Your task to perform on an android device: Open Google Image 0: 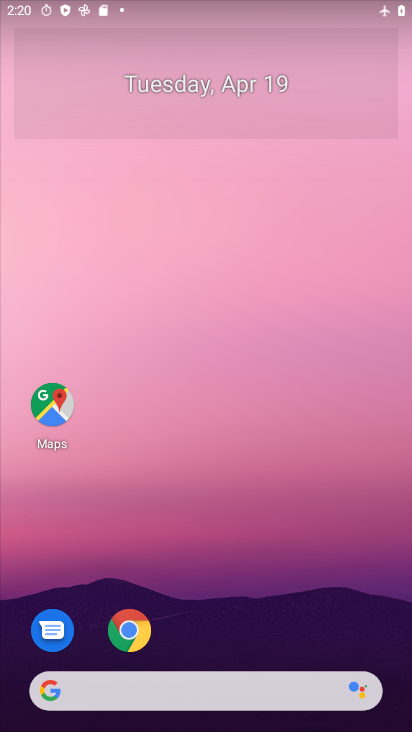
Step 0: click (199, 683)
Your task to perform on an android device: Open Google Image 1: 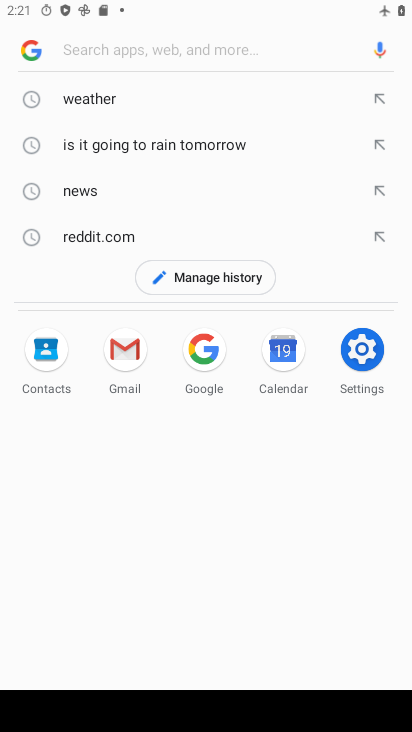
Step 1: click (201, 350)
Your task to perform on an android device: Open Google Image 2: 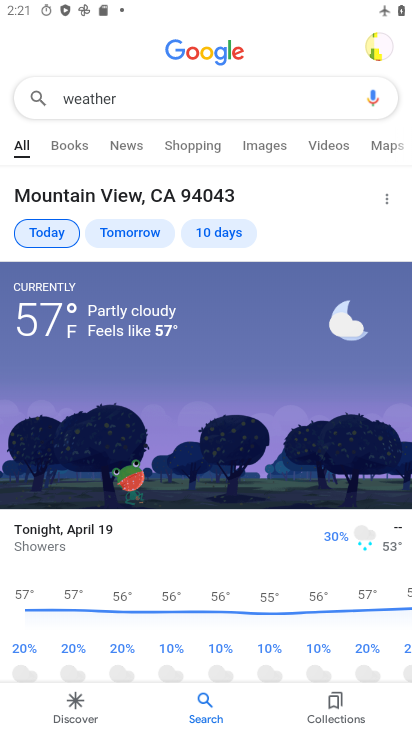
Step 2: task complete